Your task to perform on an android device: change alarm snooze length Image 0: 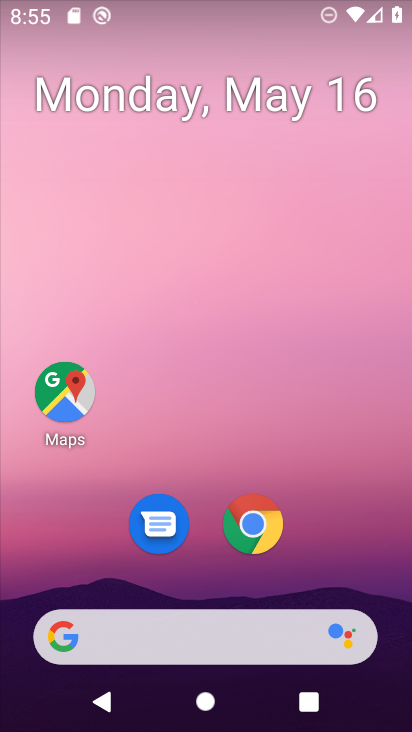
Step 0: drag from (329, 541) to (269, 103)
Your task to perform on an android device: change alarm snooze length Image 1: 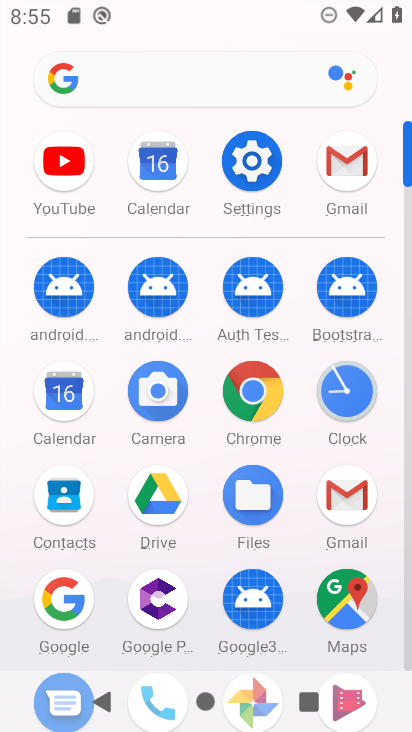
Step 1: click (341, 398)
Your task to perform on an android device: change alarm snooze length Image 2: 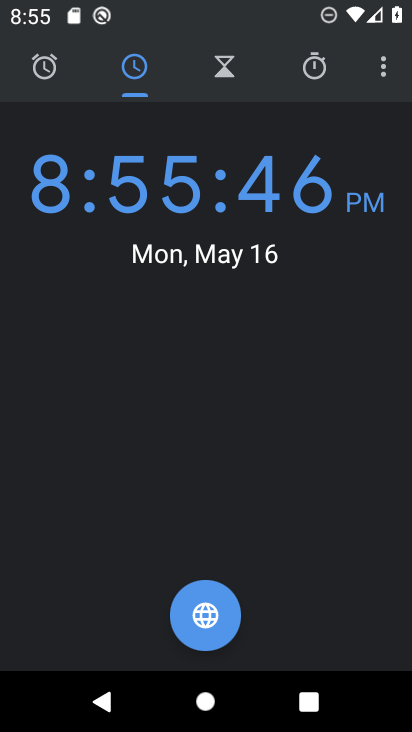
Step 2: click (380, 71)
Your task to perform on an android device: change alarm snooze length Image 3: 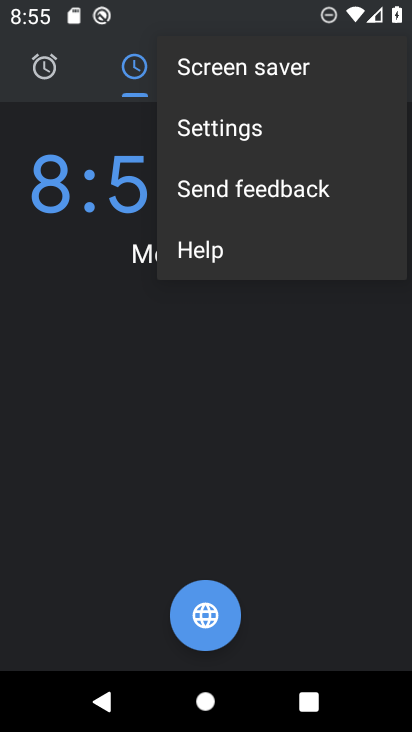
Step 3: click (290, 126)
Your task to perform on an android device: change alarm snooze length Image 4: 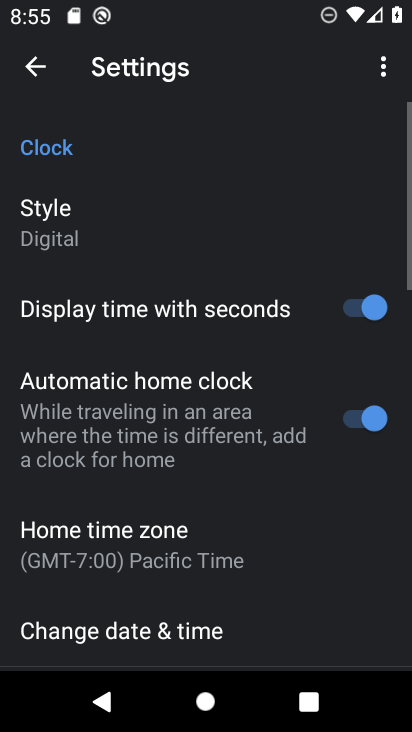
Step 4: drag from (225, 531) to (201, 133)
Your task to perform on an android device: change alarm snooze length Image 5: 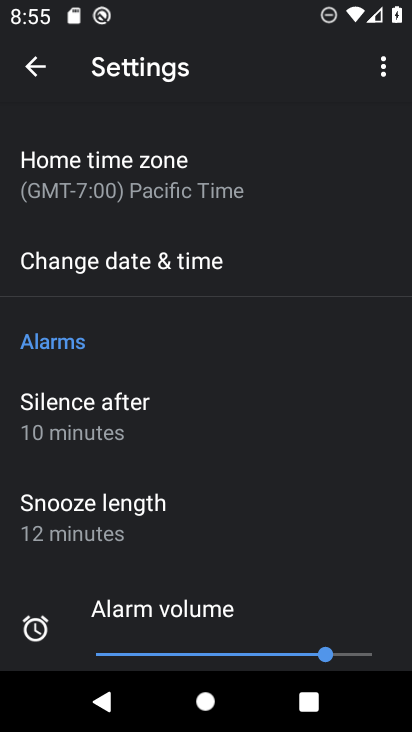
Step 5: click (112, 502)
Your task to perform on an android device: change alarm snooze length Image 6: 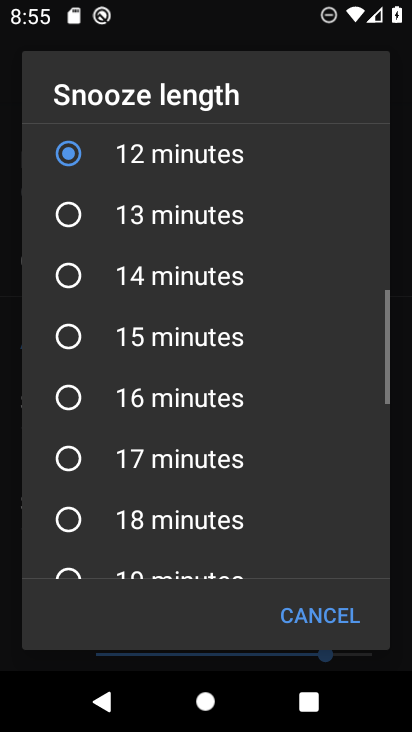
Step 6: click (71, 265)
Your task to perform on an android device: change alarm snooze length Image 7: 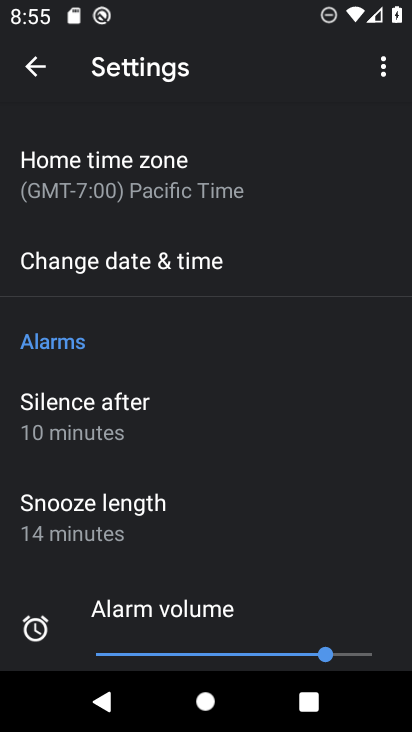
Step 7: task complete